Your task to perform on an android device: turn on javascript in the chrome app Image 0: 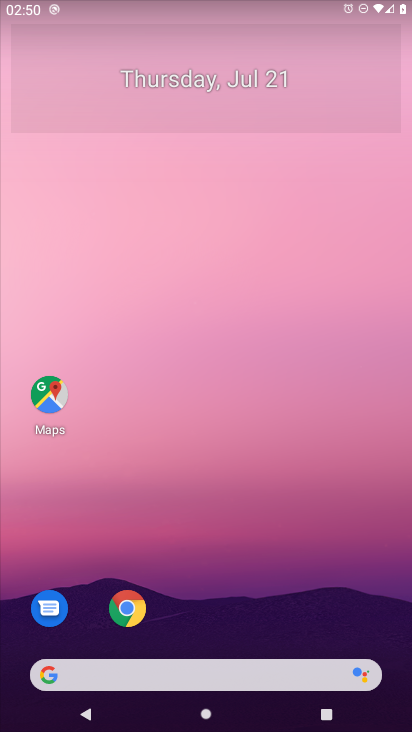
Step 0: drag from (207, 615) to (206, 158)
Your task to perform on an android device: turn on javascript in the chrome app Image 1: 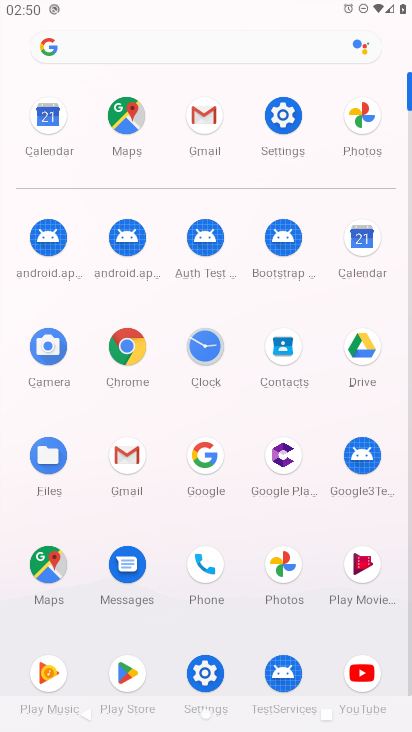
Step 1: click (126, 336)
Your task to perform on an android device: turn on javascript in the chrome app Image 2: 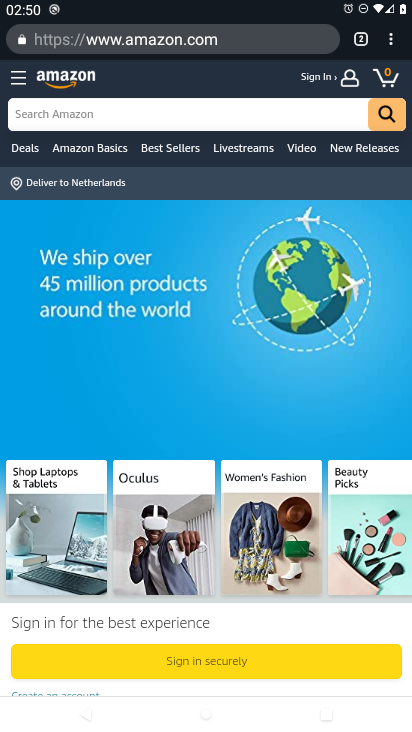
Step 2: drag from (386, 45) to (279, 472)
Your task to perform on an android device: turn on javascript in the chrome app Image 3: 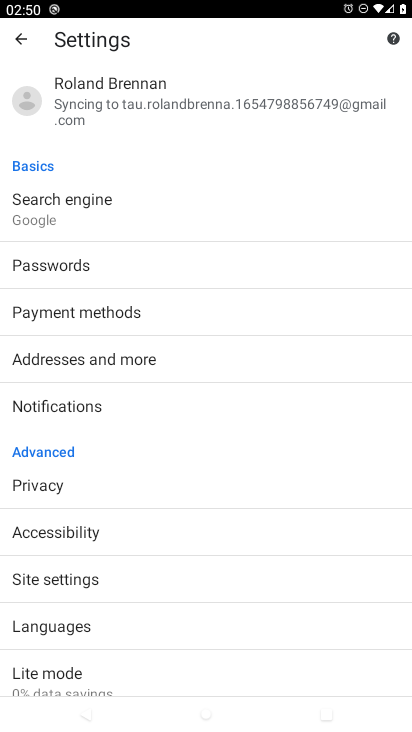
Step 3: click (60, 584)
Your task to perform on an android device: turn on javascript in the chrome app Image 4: 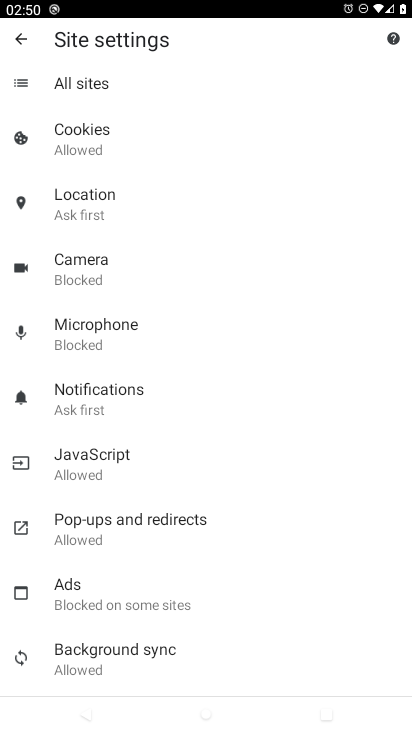
Step 4: click (77, 470)
Your task to perform on an android device: turn on javascript in the chrome app Image 5: 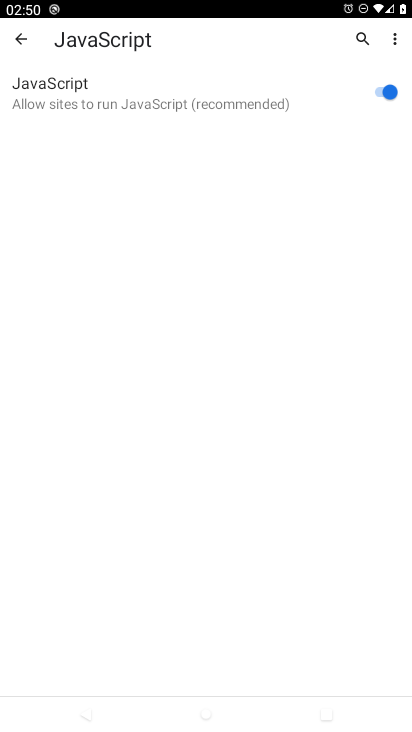
Step 5: task complete